Your task to perform on an android device: manage bookmarks in the chrome app Image 0: 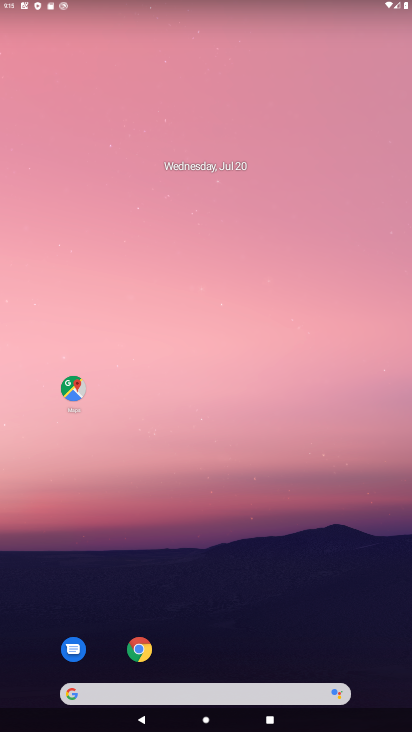
Step 0: click (145, 651)
Your task to perform on an android device: manage bookmarks in the chrome app Image 1: 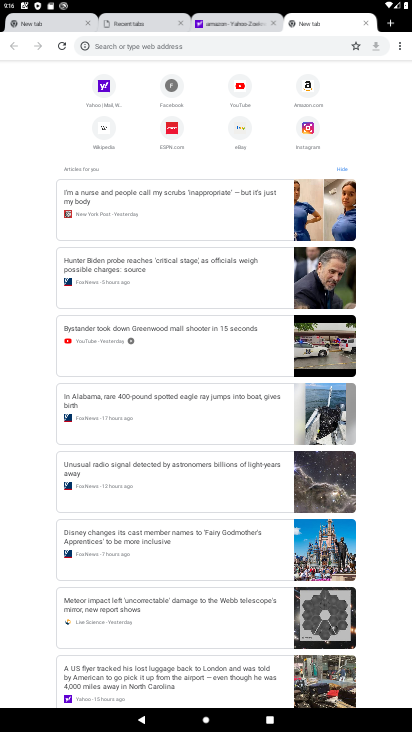
Step 1: task complete